Your task to perform on an android device: turn off javascript in the chrome app Image 0: 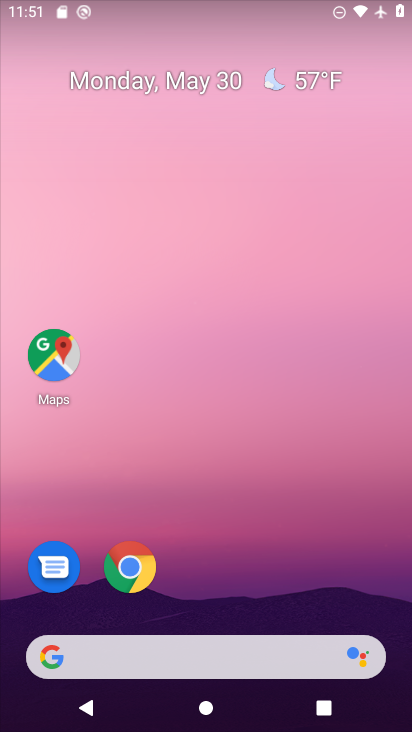
Step 0: drag from (215, 572) to (222, 126)
Your task to perform on an android device: turn off javascript in the chrome app Image 1: 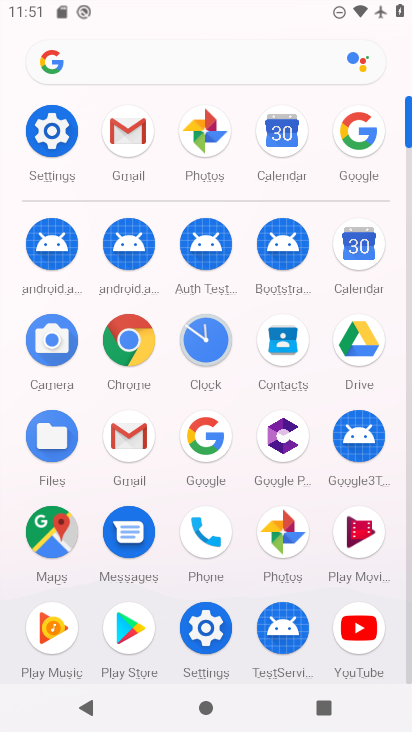
Step 1: click (139, 338)
Your task to perform on an android device: turn off javascript in the chrome app Image 2: 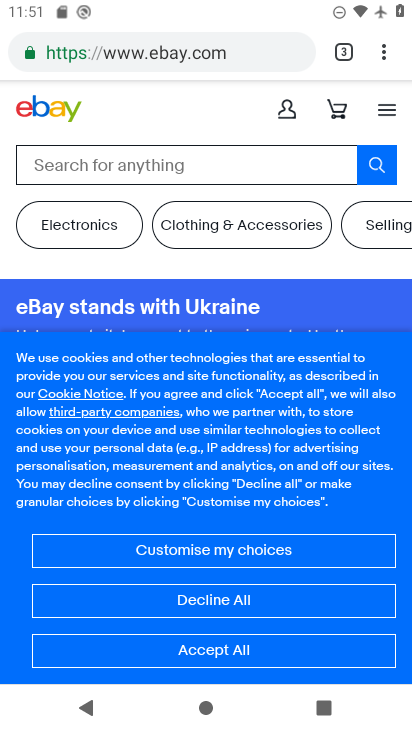
Step 2: click (384, 47)
Your task to perform on an android device: turn off javascript in the chrome app Image 3: 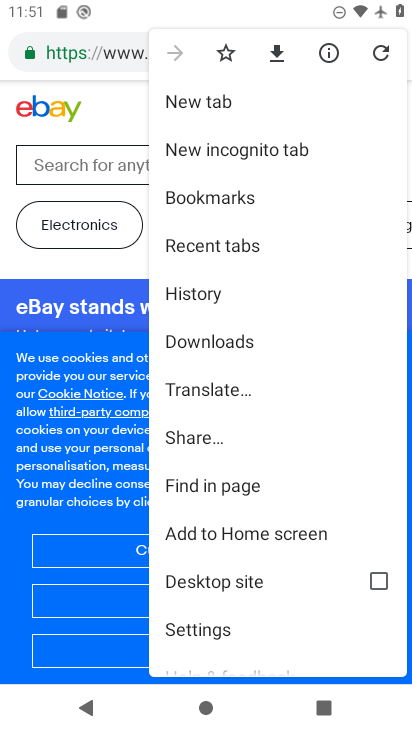
Step 3: drag from (240, 518) to (256, 287)
Your task to perform on an android device: turn off javascript in the chrome app Image 4: 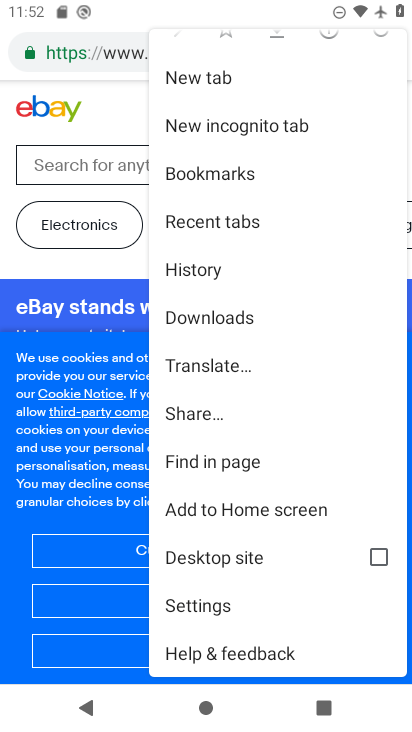
Step 4: click (208, 611)
Your task to perform on an android device: turn off javascript in the chrome app Image 5: 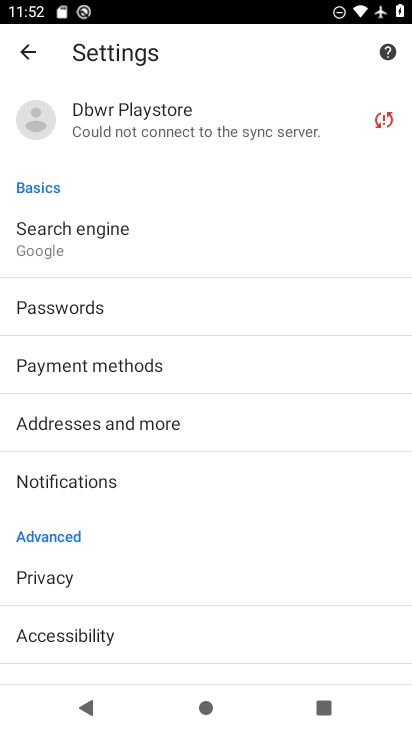
Step 5: drag from (142, 600) to (150, 268)
Your task to perform on an android device: turn off javascript in the chrome app Image 6: 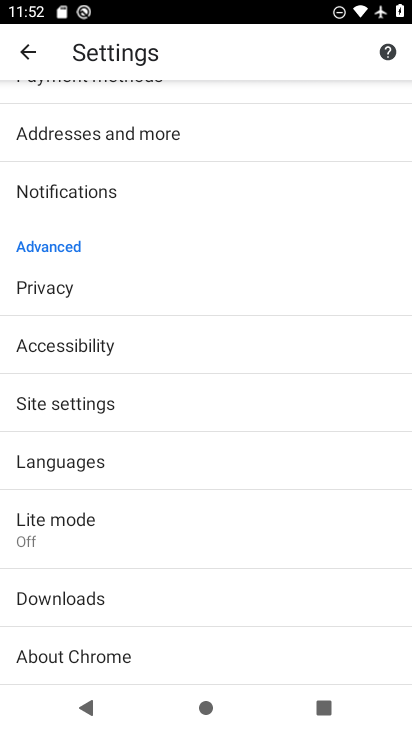
Step 6: drag from (123, 622) to (146, 398)
Your task to perform on an android device: turn off javascript in the chrome app Image 7: 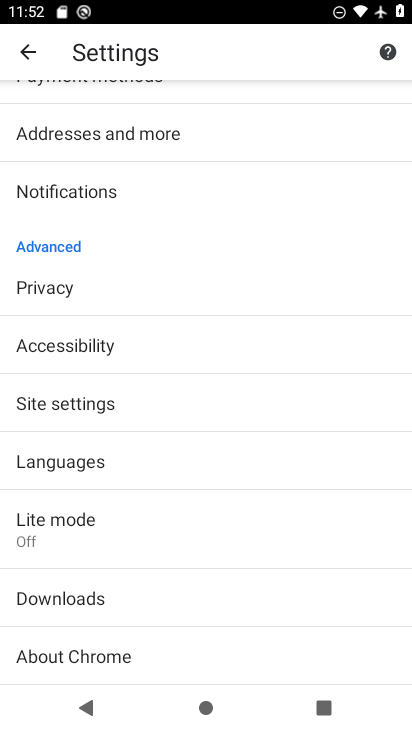
Step 7: click (96, 409)
Your task to perform on an android device: turn off javascript in the chrome app Image 8: 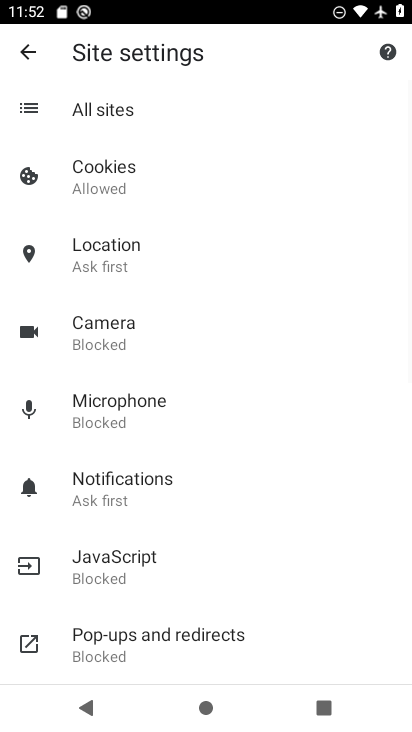
Step 8: click (131, 565)
Your task to perform on an android device: turn off javascript in the chrome app Image 9: 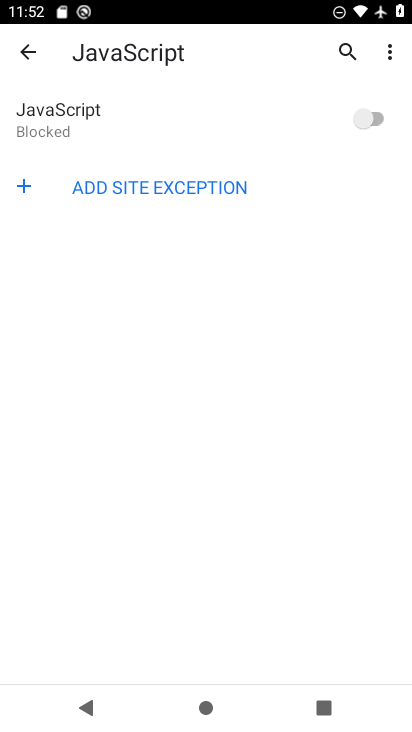
Step 9: task complete